Your task to perform on an android device: Search for 35 best books of all time Image 0: 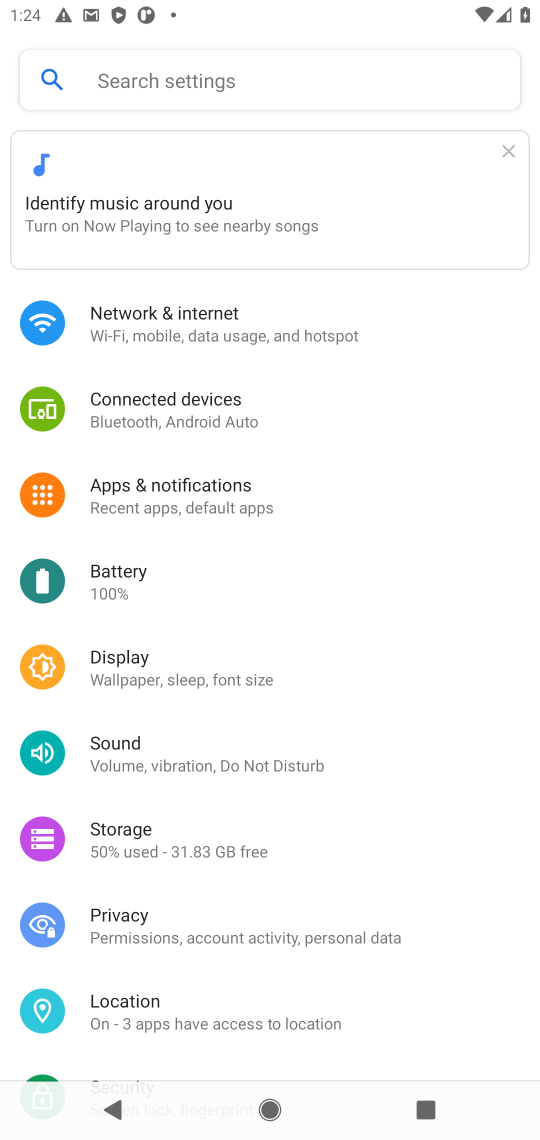
Step 0: press home button
Your task to perform on an android device: Search for 35 best books of all time Image 1: 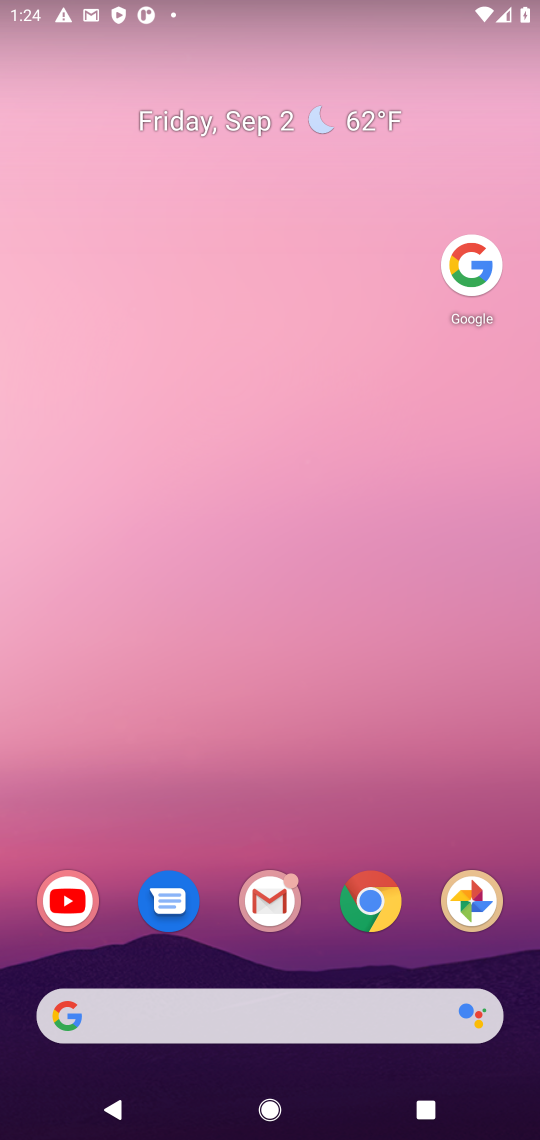
Step 1: drag from (318, 494) to (329, 342)
Your task to perform on an android device: Search for 35 best books of all time Image 2: 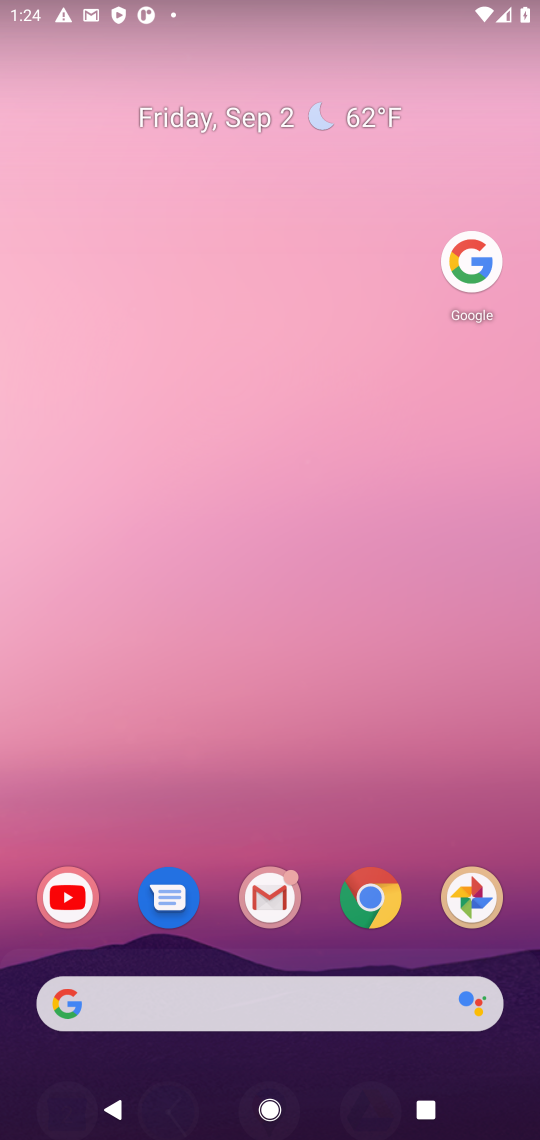
Step 2: click (488, 267)
Your task to perform on an android device: Search for 35 best books of all time Image 3: 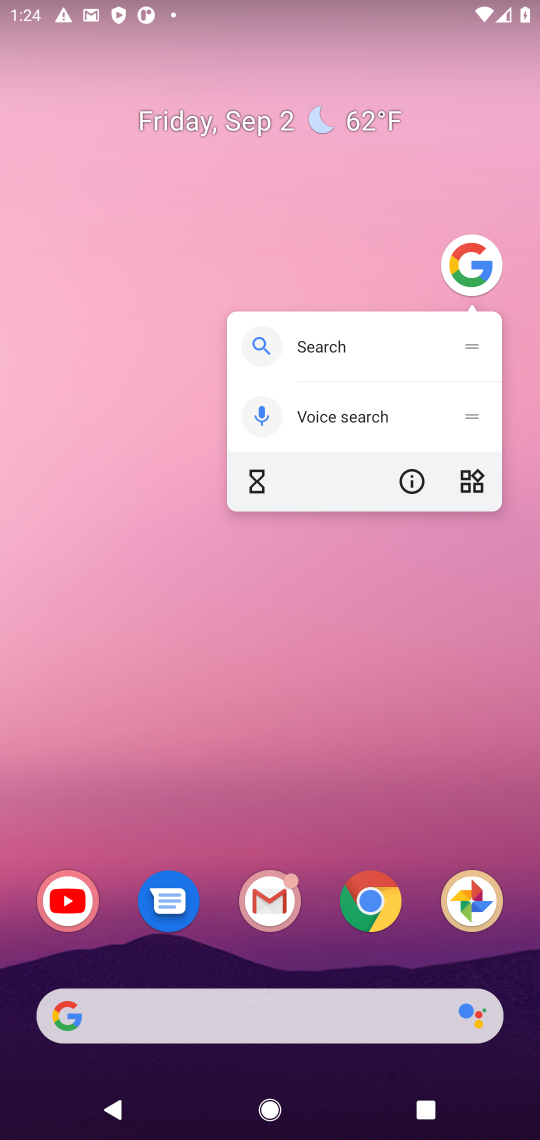
Step 3: click (477, 269)
Your task to perform on an android device: Search for 35 best books of all time Image 4: 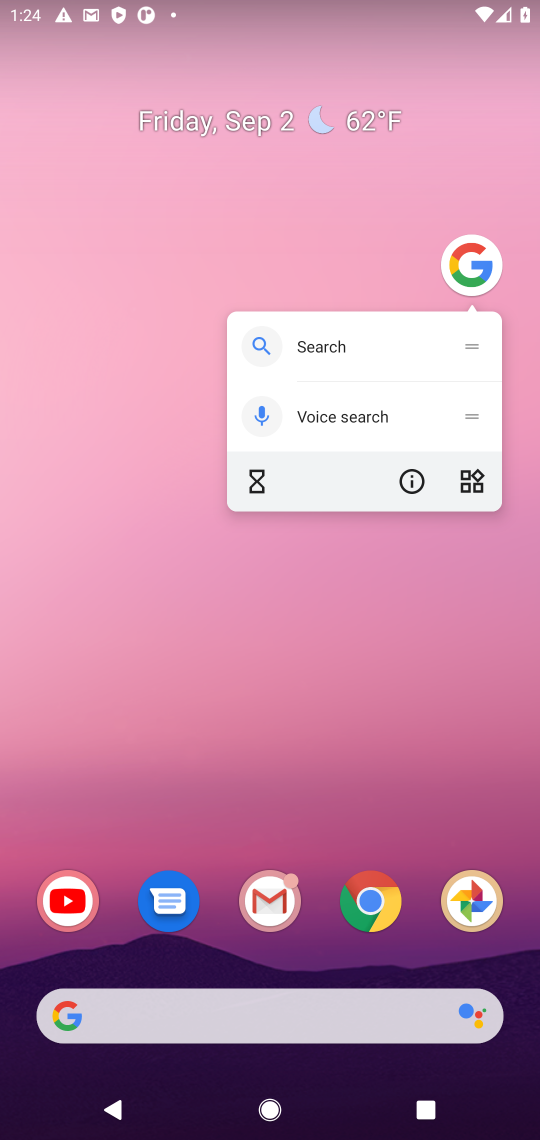
Step 4: click (474, 267)
Your task to perform on an android device: Search for 35 best books of all time Image 5: 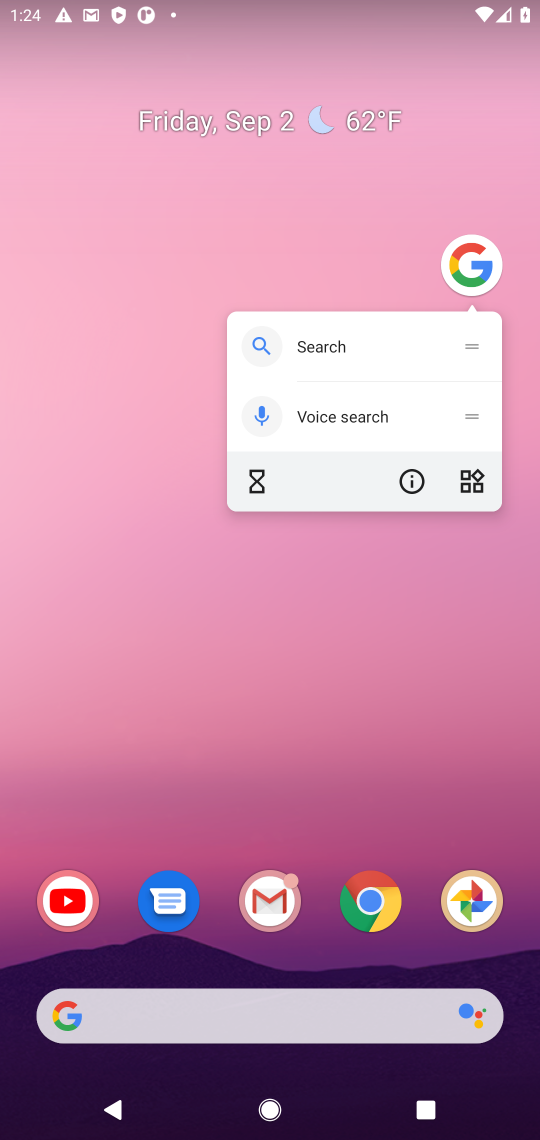
Step 5: click (480, 255)
Your task to perform on an android device: Search for 35 best books of all time Image 6: 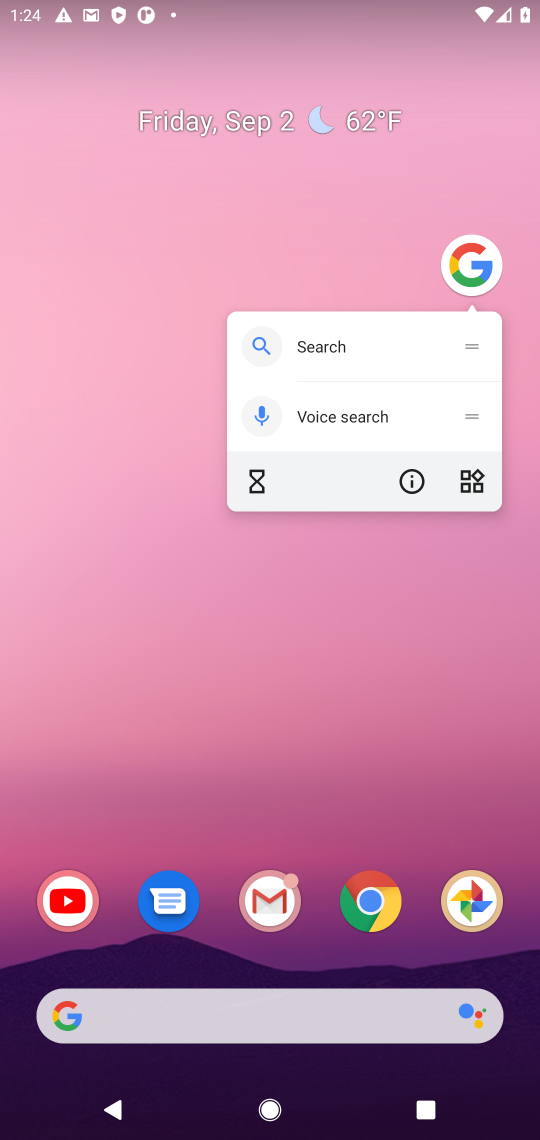
Step 6: click (461, 262)
Your task to perform on an android device: Search for 35 best books of all time Image 7: 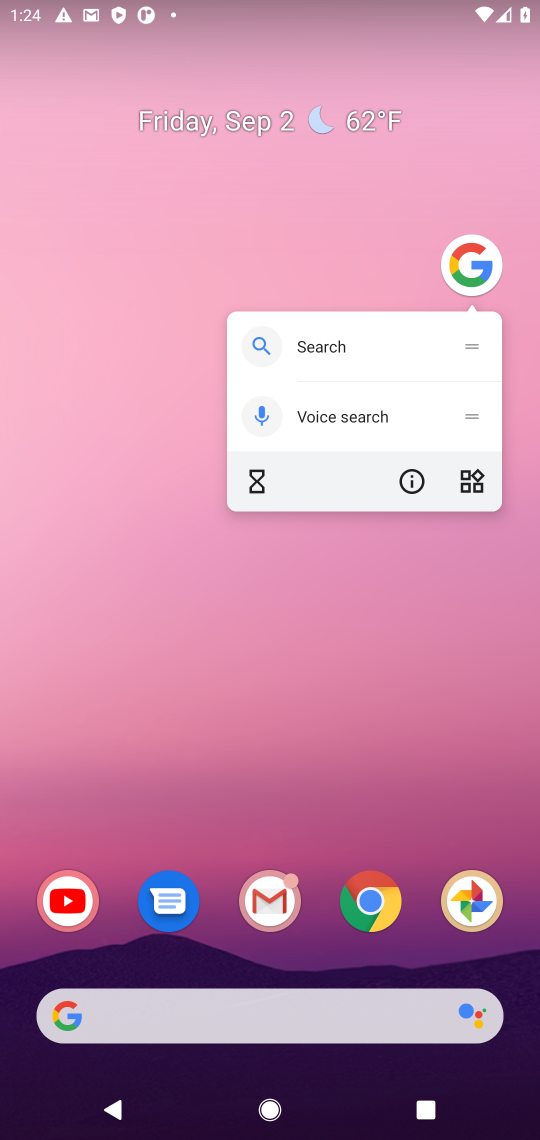
Step 7: click (464, 262)
Your task to perform on an android device: Search for 35 best books of all time Image 8: 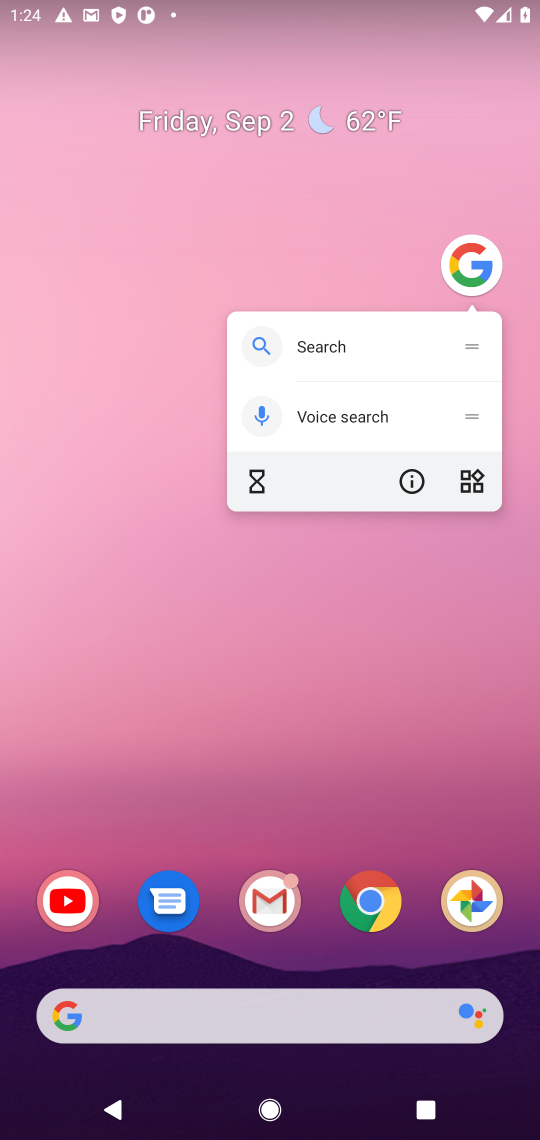
Step 8: click (464, 262)
Your task to perform on an android device: Search for 35 best books of all time Image 9: 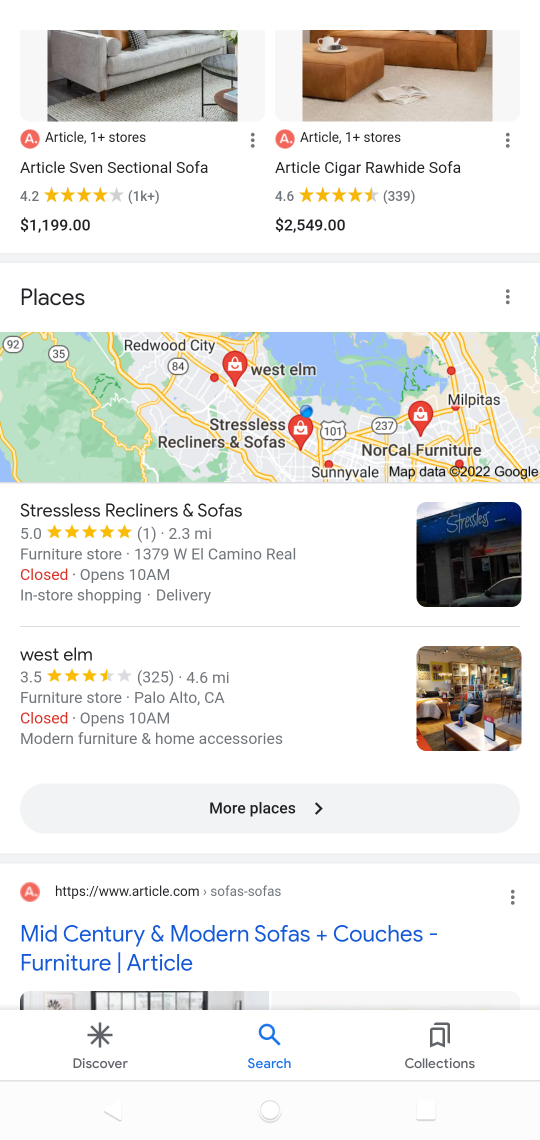
Step 9: click (464, 262)
Your task to perform on an android device: Search for 35 best books of all time Image 10: 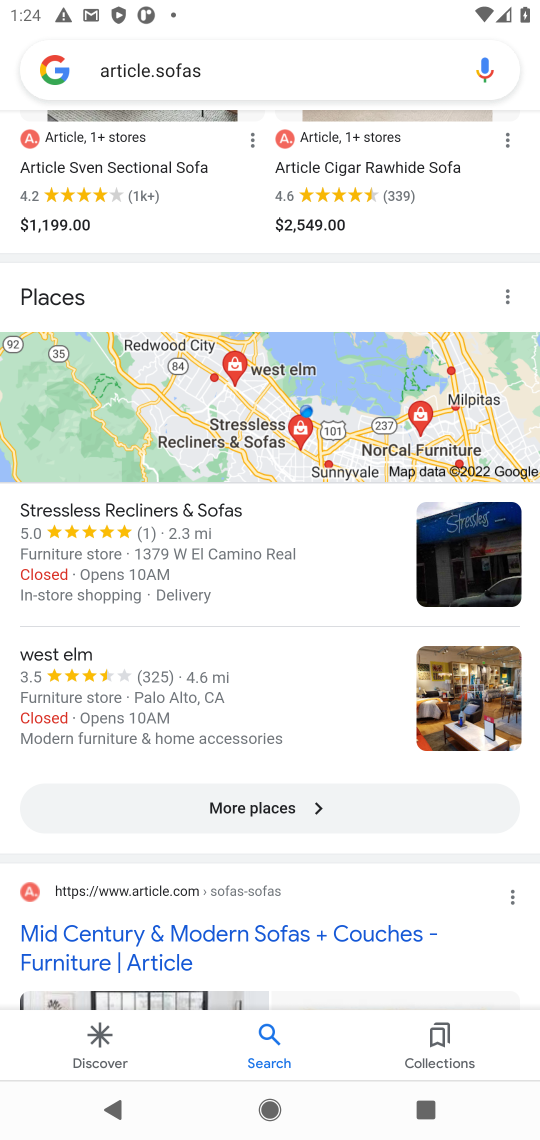
Step 10: click (285, 81)
Your task to perform on an android device: Search for 35 best books of all time Image 11: 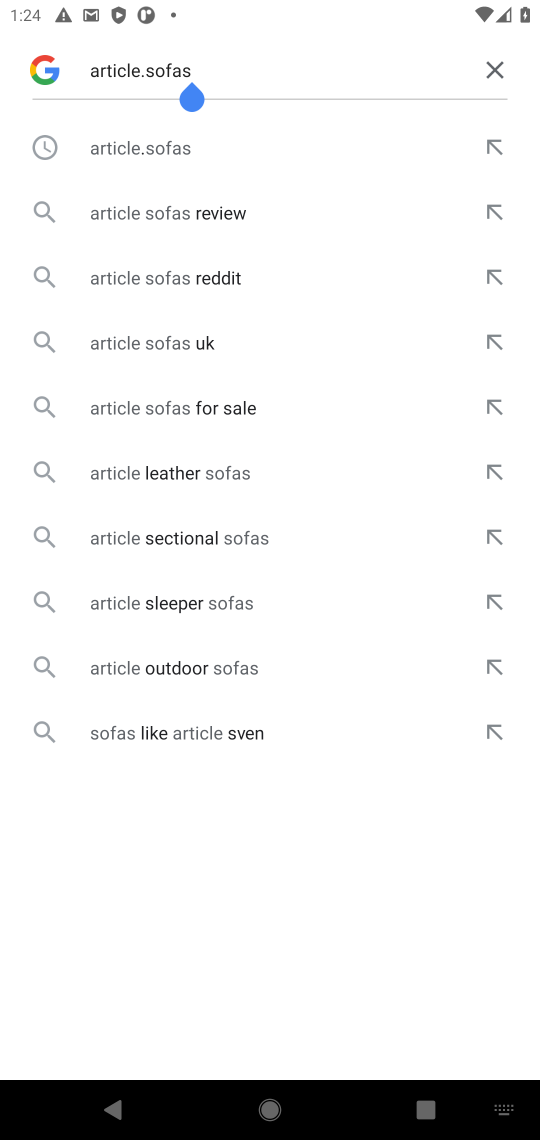
Step 11: click (489, 61)
Your task to perform on an android device: Search for 35 best books of all time Image 12: 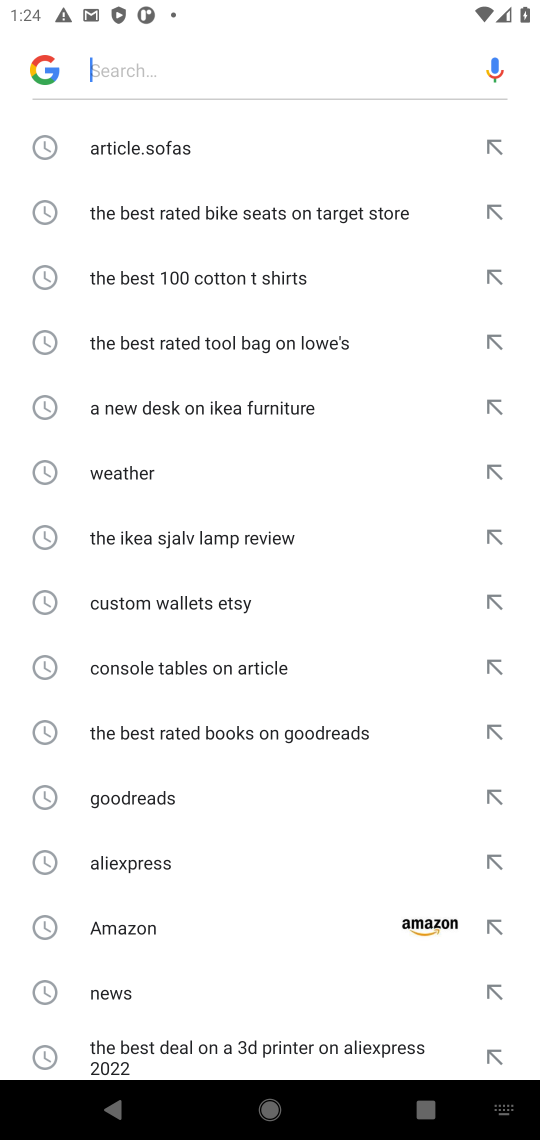
Step 12: click (220, 57)
Your task to perform on an android device: Search for 35 best books of all time Image 13: 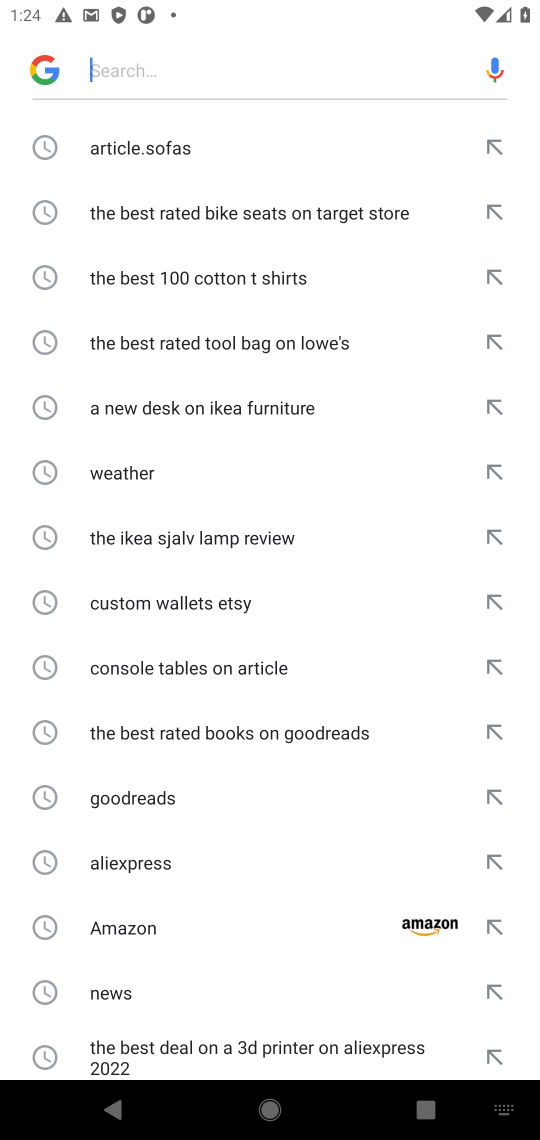
Step 13: type "35 best books of all time "
Your task to perform on an android device: Search for 35 best books of all time Image 14: 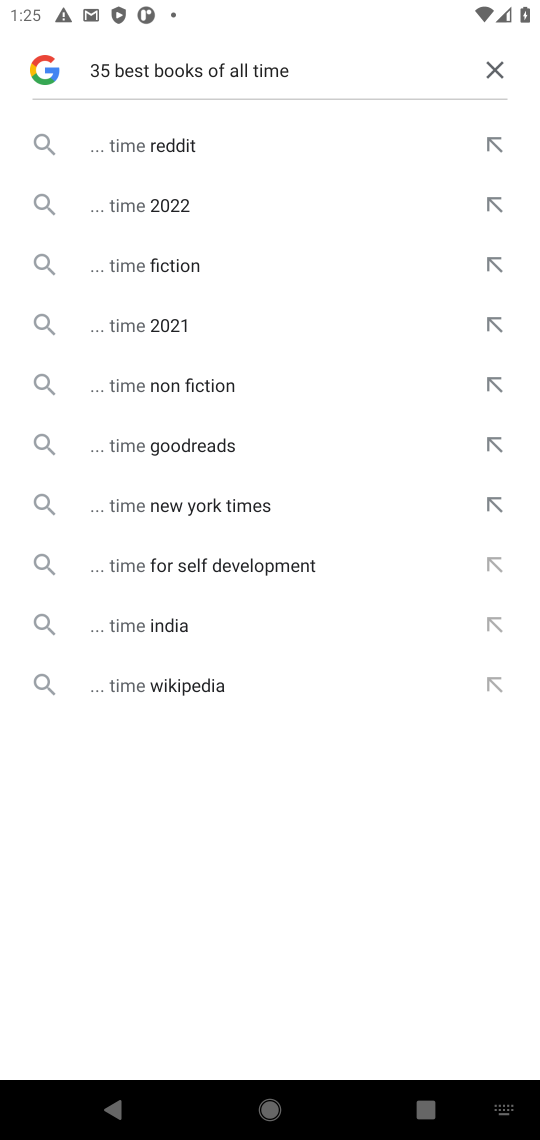
Step 14: click (186, 155)
Your task to perform on an android device: Search for 35 best books of all time Image 15: 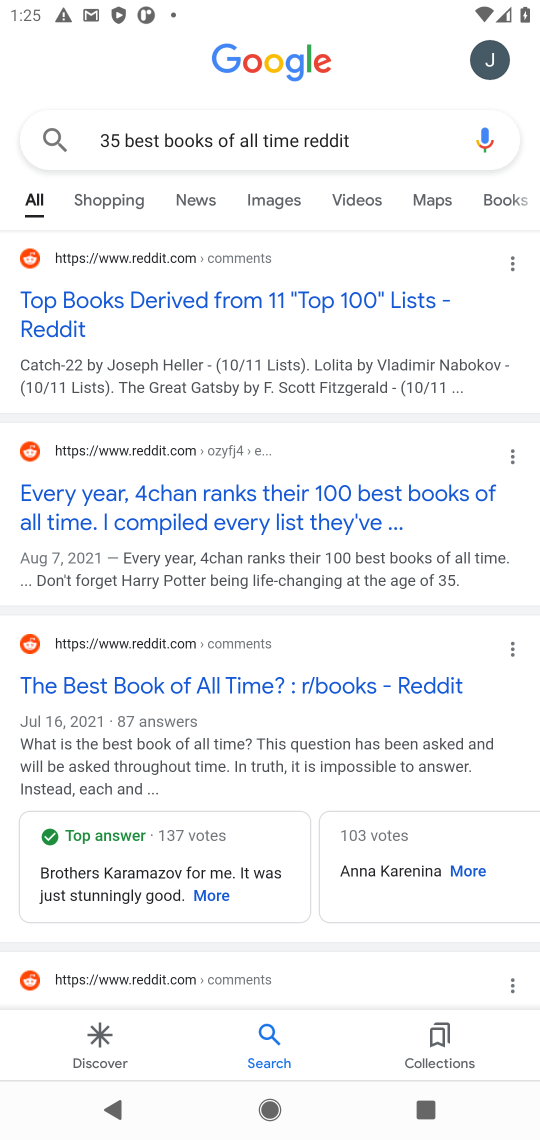
Step 15: drag from (225, 770) to (322, 208)
Your task to perform on an android device: Search for 35 best books of all time Image 16: 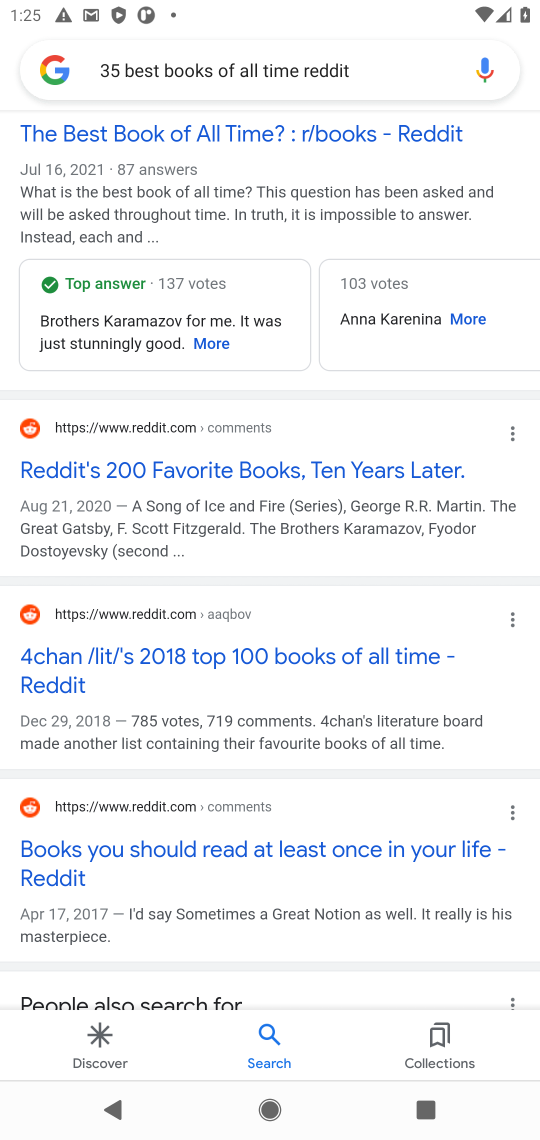
Step 16: drag from (250, 894) to (304, 216)
Your task to perform on an android device: Search for 35 best books of all time Image 17: 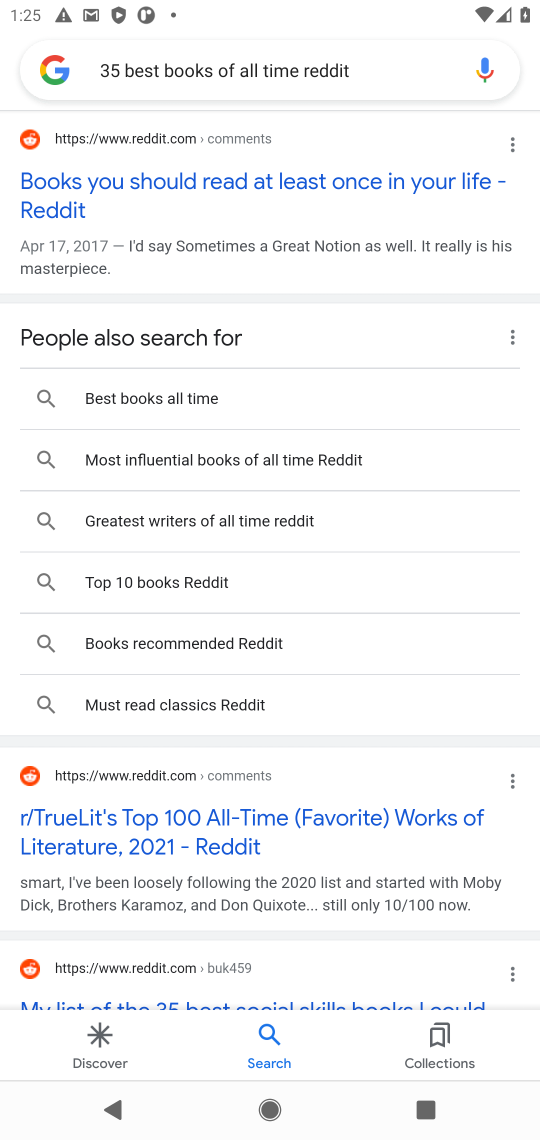
Step 17: drag from (228, 902) to (392, 256)
Your task to perform on an android device: Search for 35 best books of all time Image 18: 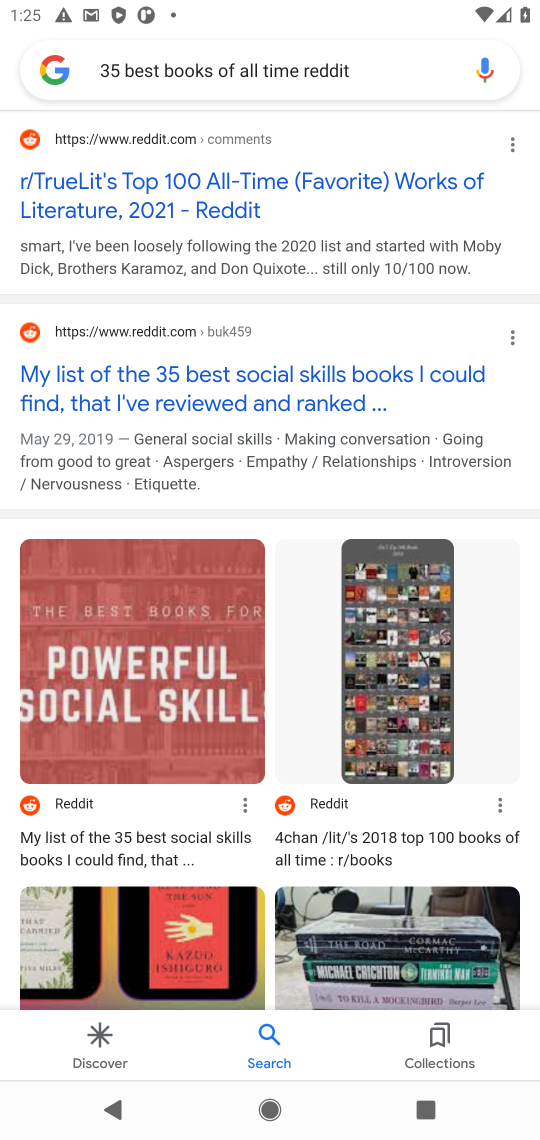
Step 18: drag from (297, 244) to (319, 963)
Your task to perform on an android device: Search for 35 best books of all time Image 19: 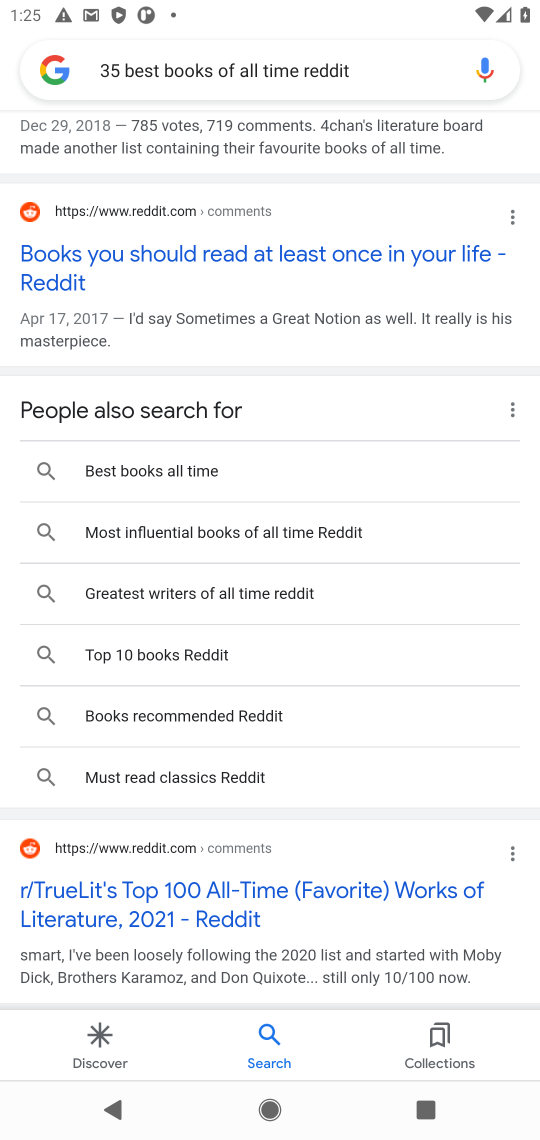
Step 19: drag from (305, 251) to (376, 441)
Your task to perform on an android device: Search for 35 best books of all time Image 20: 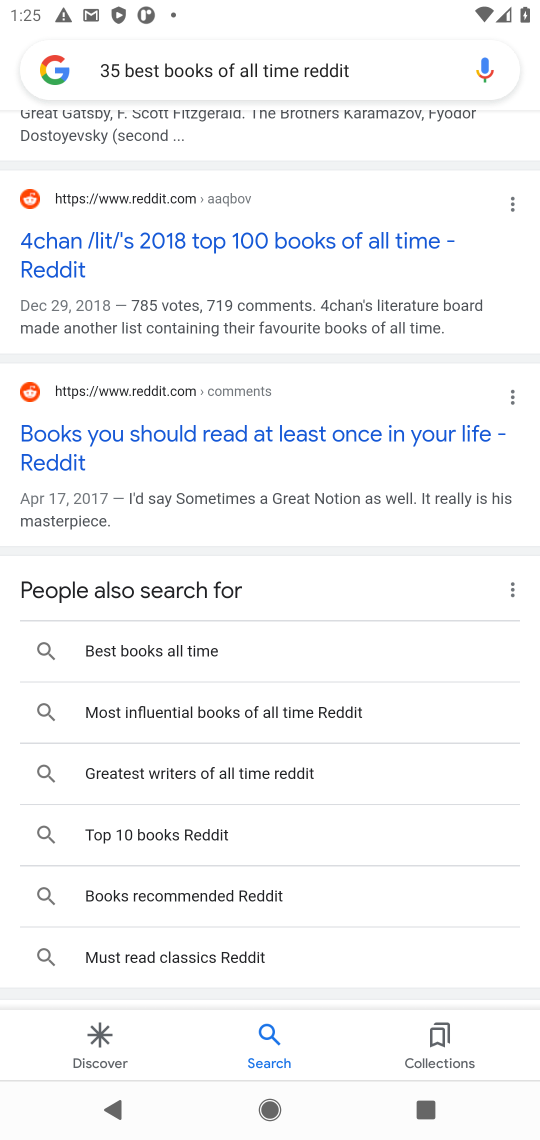
Step 20: click (171, 637)
Your task to perform on an android device: Search for 35 best books of all time Image 21: 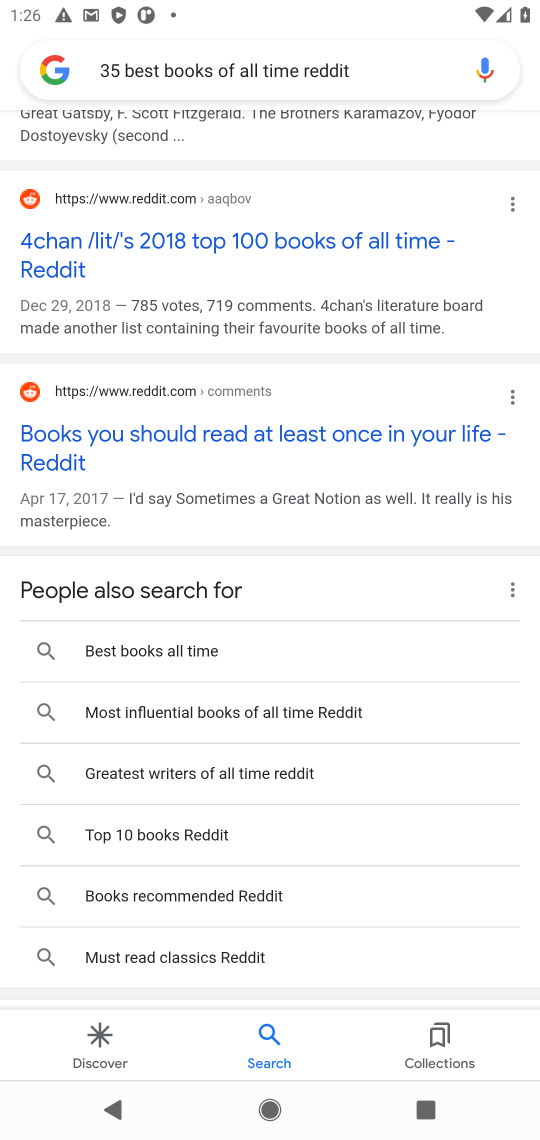
Step 21: click (222, 645)
Your task to perform on an android device: Search for 35 best books of all time Image 22: 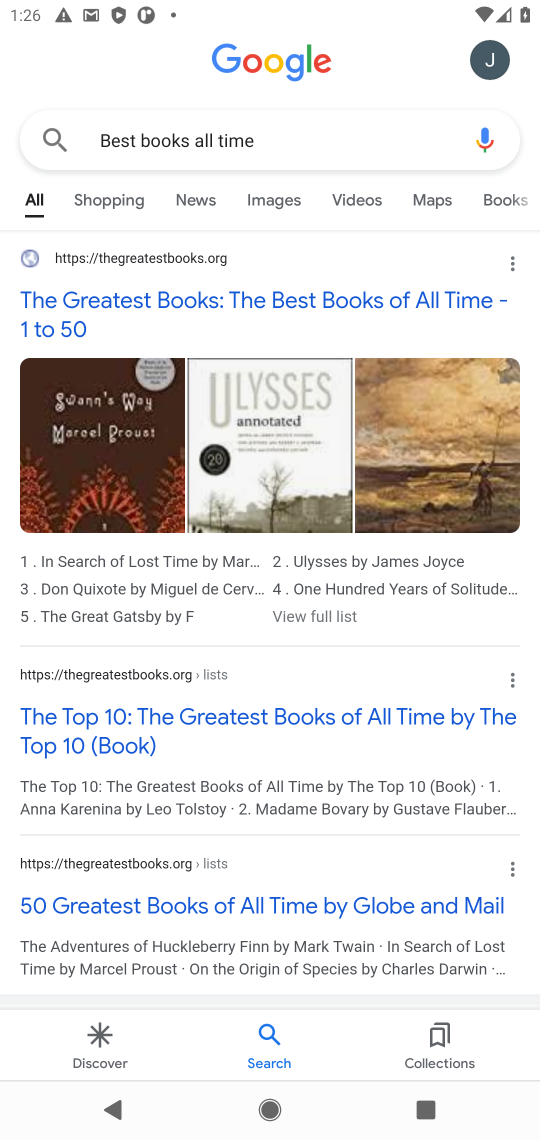
Step 22: click (185, 305)
Your task to perform on an android device: Search for 35 best books of all time Image 23: 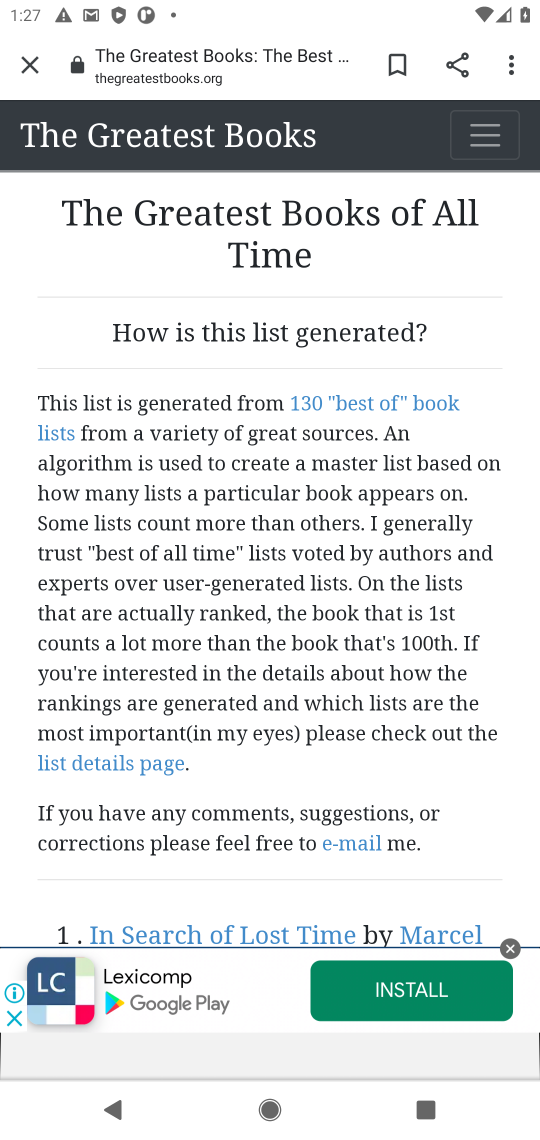
Step 23: drag from (137, 889) to (350, 176)
Your task to perform on an android device: Search for 35 best books of all time Image 24: 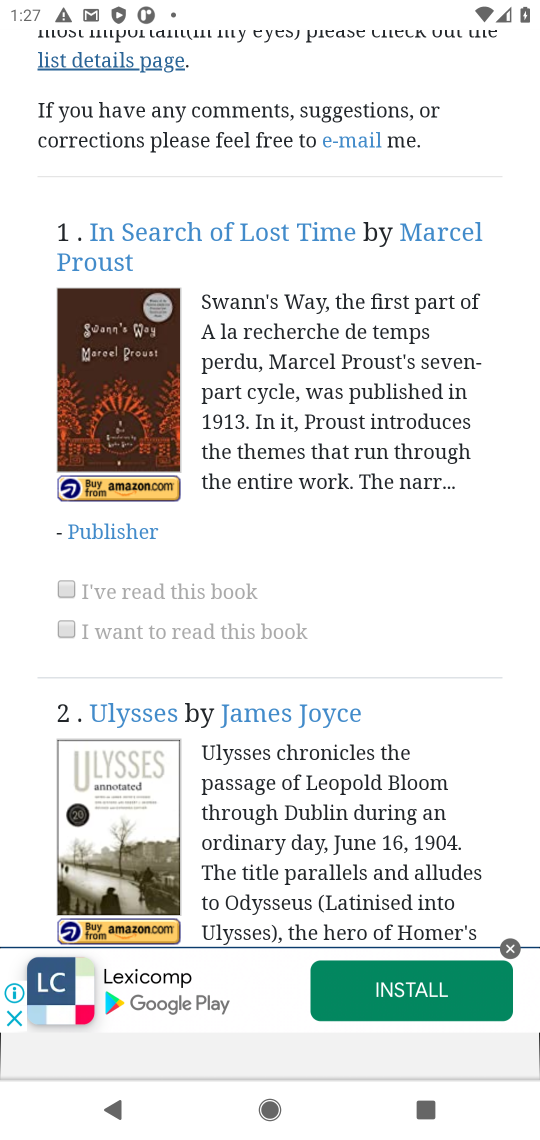
Step 24: click (512, 945)
Your task to perform on an android device: Search for 35 best books of all time Image 25: 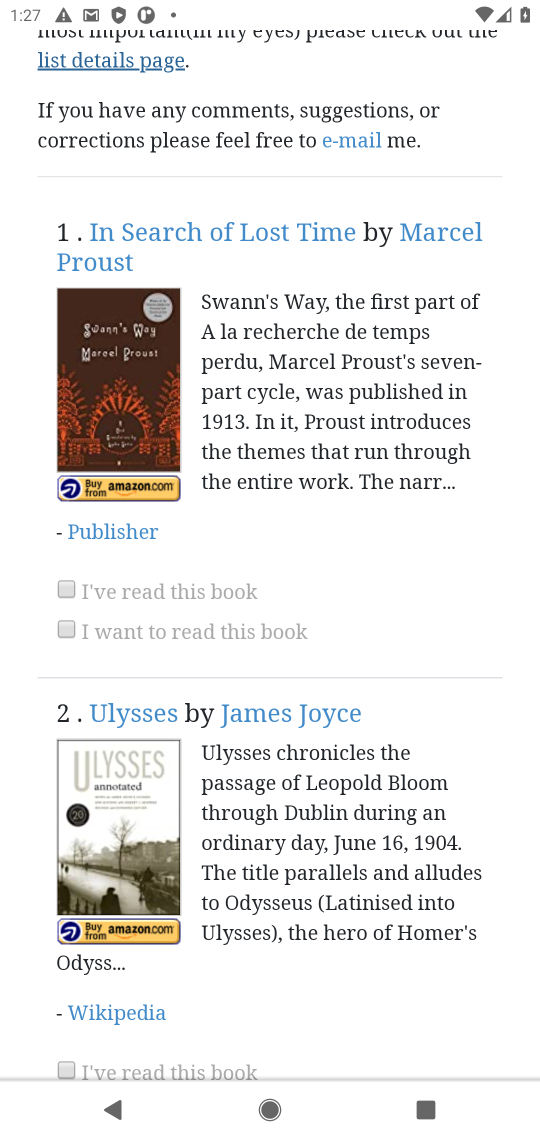
Step 25: drag from (279, 298) to (337, 128)
Your task to perform on an android device: Search for 35 best books of all time Image 26: 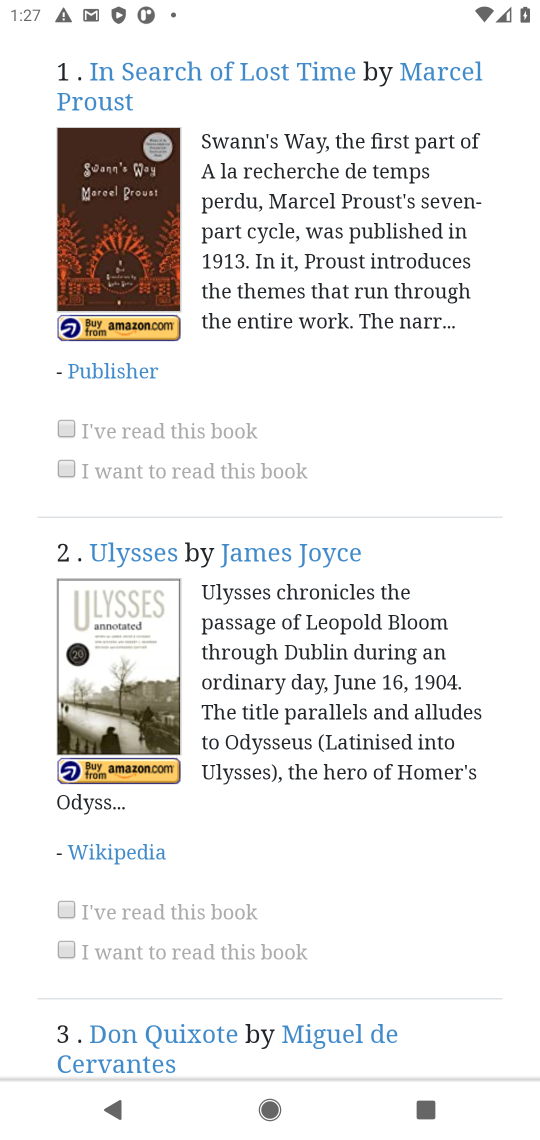
Step 26: drag from (230, 925) to (372, 174)
Your task to perform on an android device: Search for 35 best books of all time Image 27: 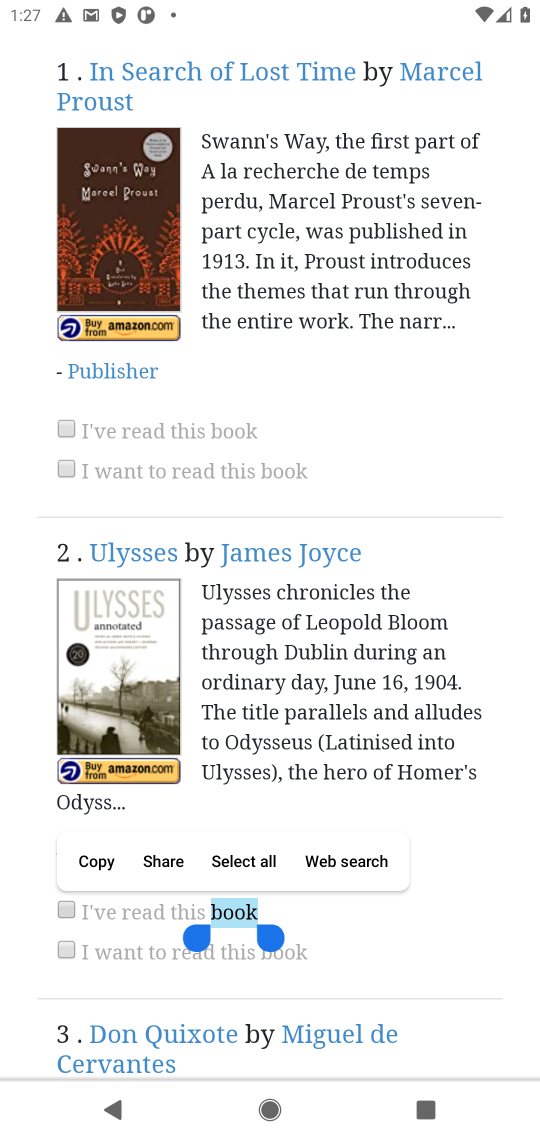
Step 27: click (467, 980)
Your task to perform on an android device: Search for 35 best books of all time Image 28: 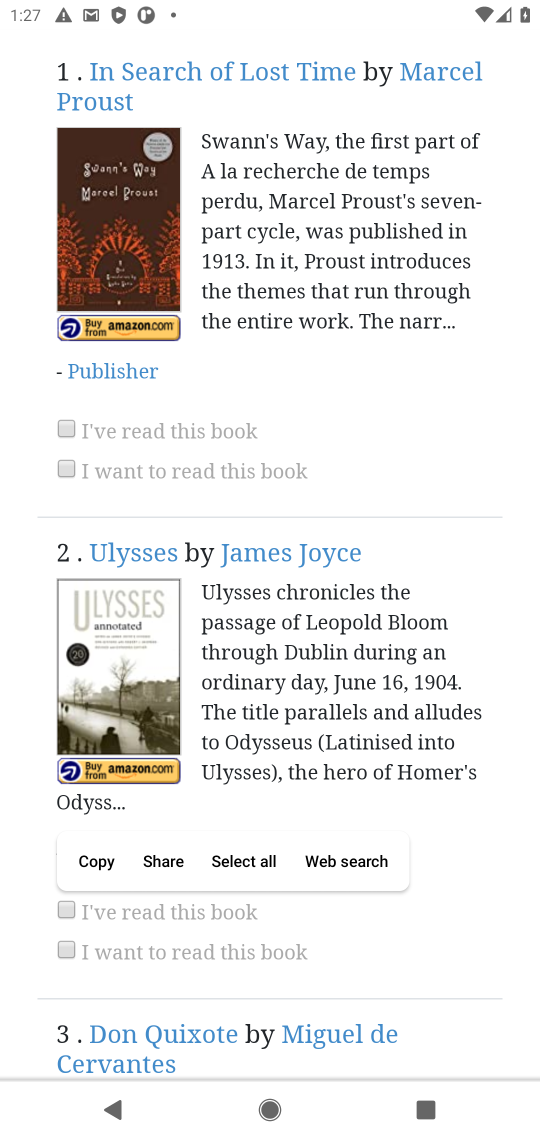
Step 28: task complete